Your task to perform on an android device: Go to sound settings Image 0: 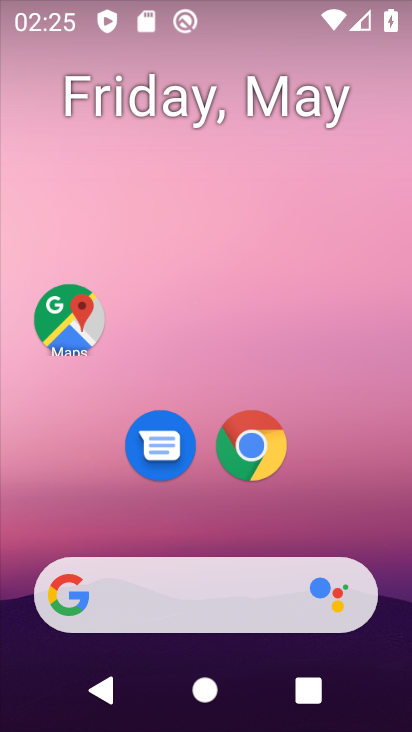
Step 0: drag from (83, 556) to (227, 57)
Your task to perform on an android device: Go to sound settings Image 1: 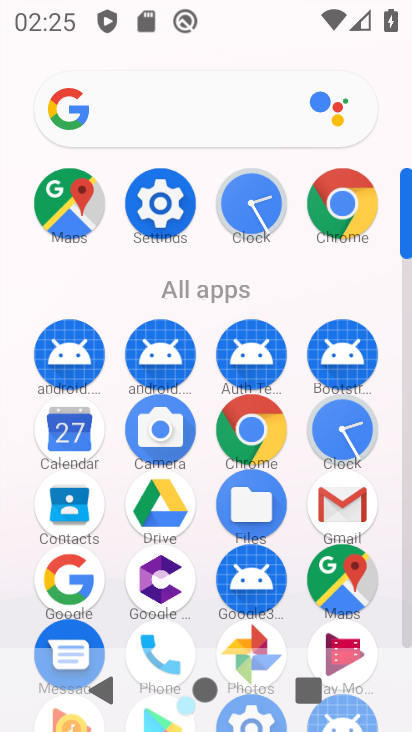
Step 1: drag from (229, 639) to (300, 396)
Your task to perform on an android device: Go to sound settings Image 2: 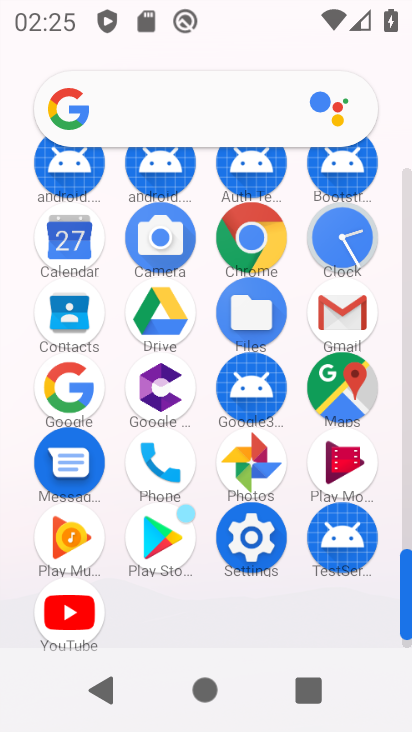
Step 2: click (265, 543)
Your task to perform on an android device: Go to sound settings Image 3: 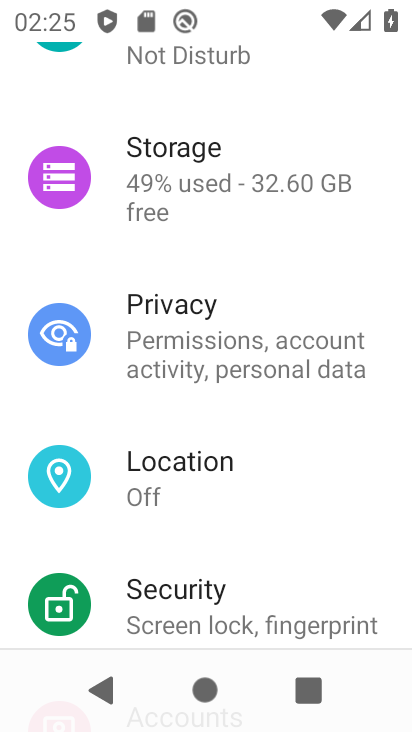
Step 3: drag from (267, 270) to (269, 663)
Your task to perform on an android device: Go to sound settings Image 4: 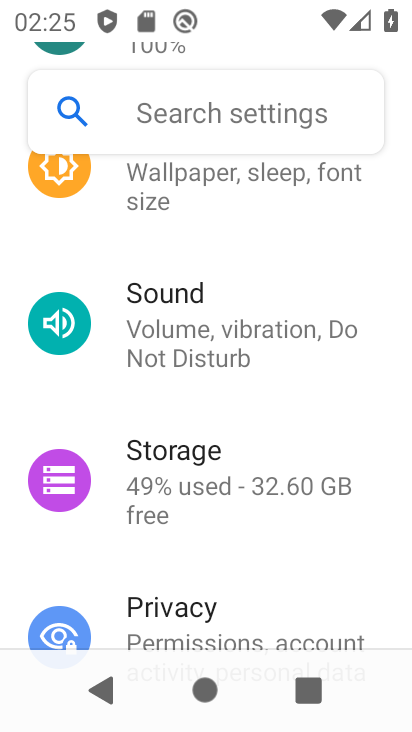
Step 4: drag from (280, 322) to (246, 676)
Your task to perform on an android device: Go to sound settings Image 5: 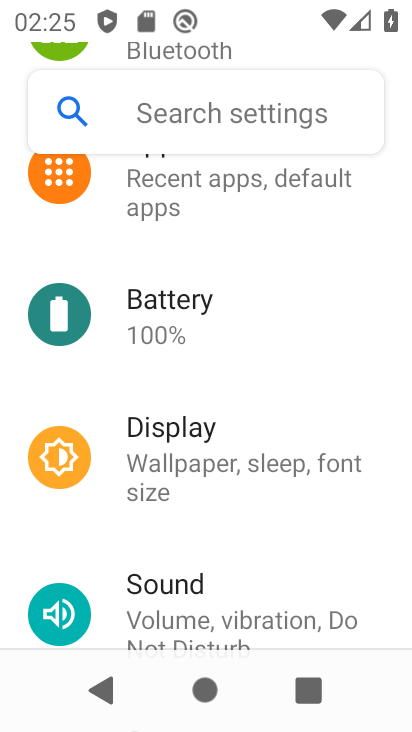
Step 5: click (197, 594)
Your task to perform on an android device: Go to sound settings Image 6: 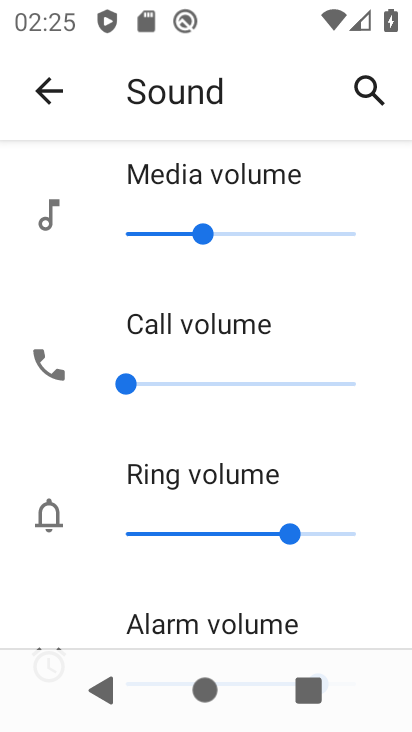
Step 6: task complete